Your task to perform on an android device: Go to Android settings Image 0: 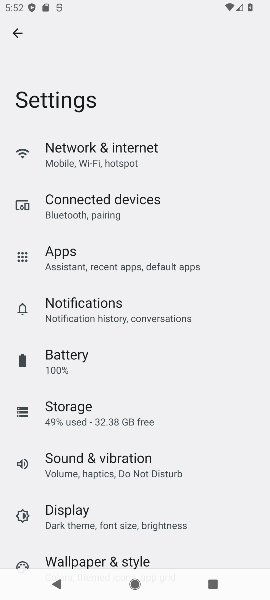
Step 0: press home button
Your task to perform on an android device: Go to Android settings Image 1: 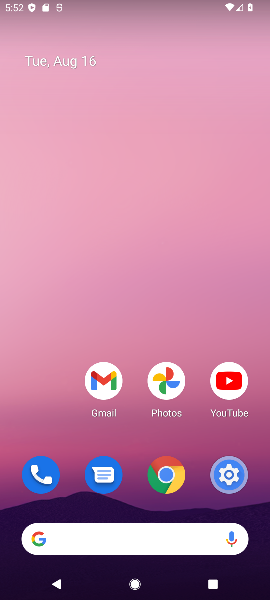
Step 1: drag from (247, 509) to (141, 30)
Your task to perform on an android device: Go to Android settings Image 2: 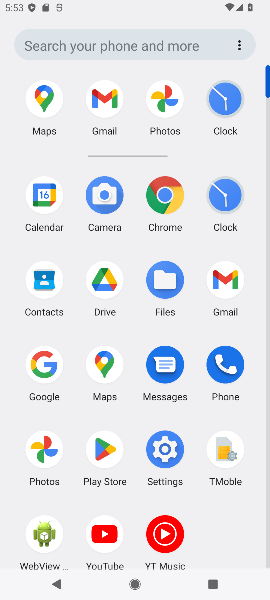
Step 2: click (165, 459)
Your task to perform on an android device: Go to Android settings Image 3: 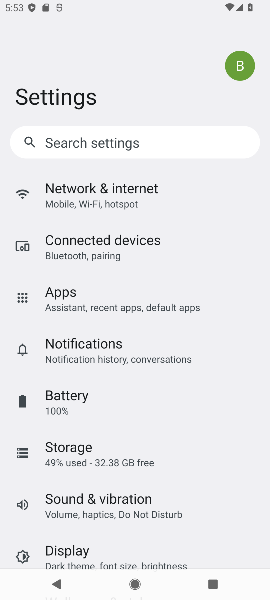
Step 3: task complete